Your task to perform on an android device: set default search engine in the chrome app Image 0: 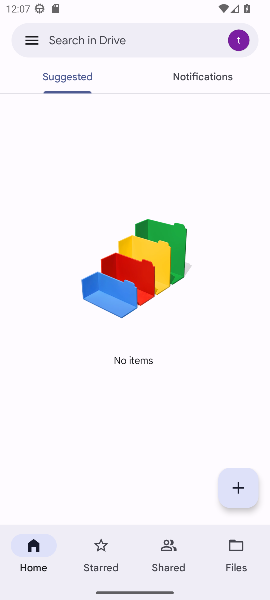
Step 0: press home button
Your task to perform on an android device: set default search engine in the chrome app Image 1: 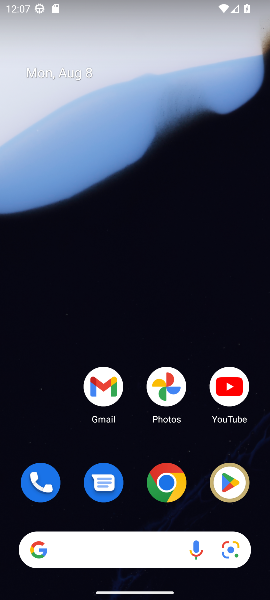
Step 1: drag from (143, 548) to (148, 250)
Your task to perform on an android device: set default search engine in the chrome app Image 2: 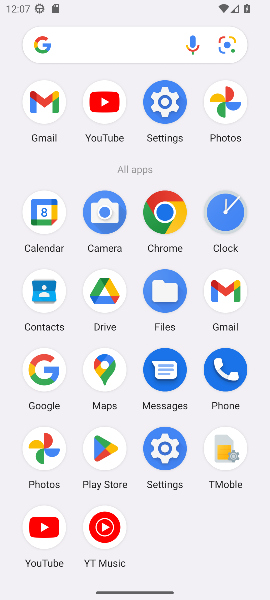
Step 2: click (163, 215)
Your task to perform on an android device: set default search engine in the chrome app Image 3: 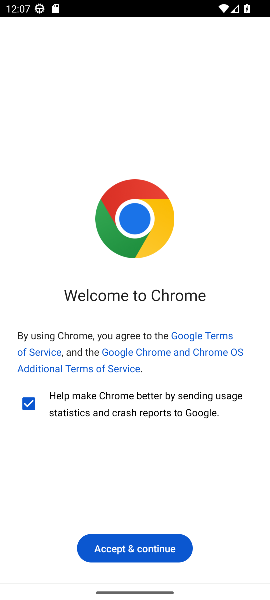
Step 3: click (152, 557)
Your task to perform on an android device: set default search engine in the chrome app Image 4: 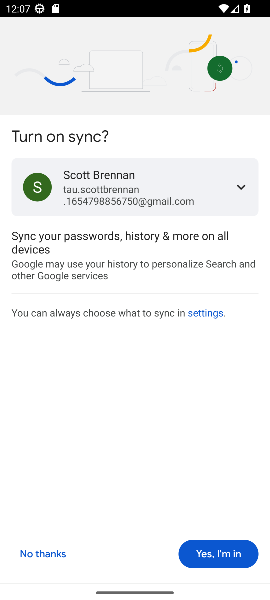
Step 4: click (43, 553)
Your task to perform on an android device: set default search engine in the chrome app Image 5: 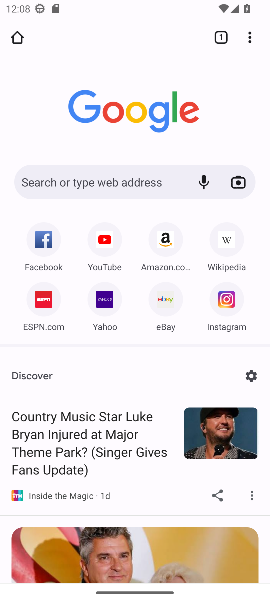
Step 5: click (247, 32)
Your task to perform on an android device: set default search engine in the chrome app Image 6: 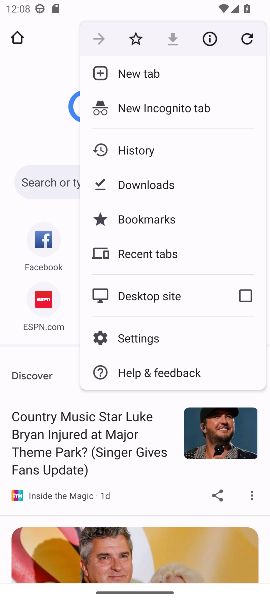
Step 6: click (152, 339)
Your task to perform on an android device: set default search engine in the chrome app Image 7: 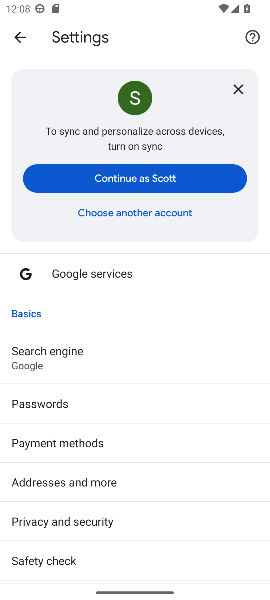
Step 7: press home button
Your task to perform on an android device: set default search engine in the chrome app Image 8: 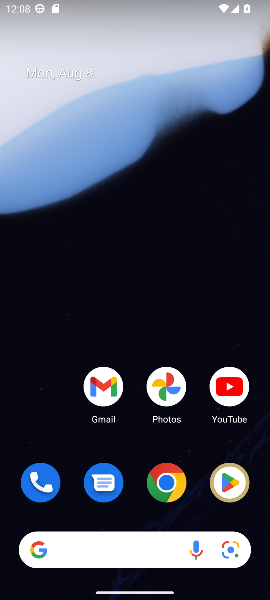
Step 8: drag from (162, 542) to (39, 61)
Your task to perform on an android device: set default search engine in the chrome app Image 9: 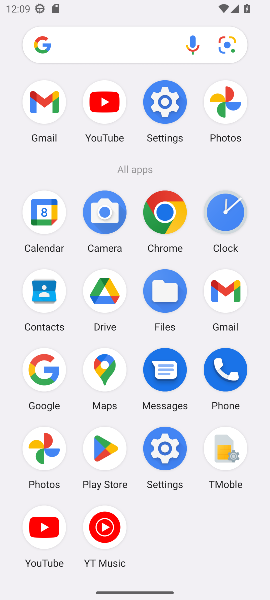
Step 9: click (39, 61)
Your task to perform on an android device: set default search engine in the chrome app Image 10: 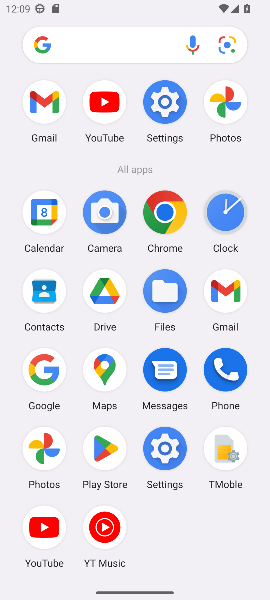
Step 10: click (175, 205)
Your task to perform on an android device: set default search engine in the chrome app Image 11: 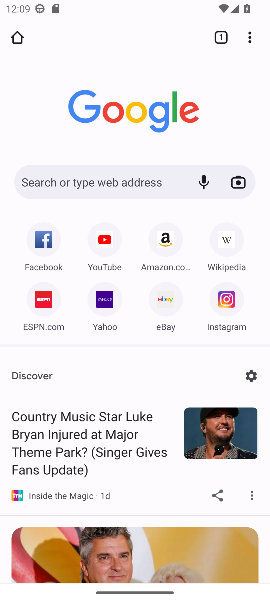
Step 11: click (248, 38)
Your task to perform on an android device: set default search engine in the chrome app Image 12: 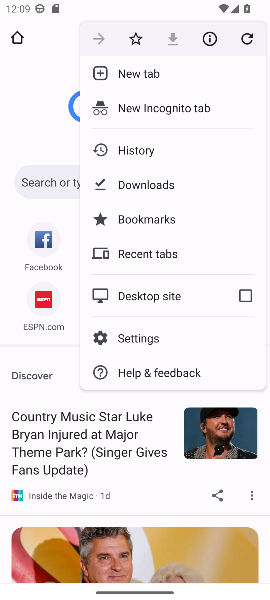
Step 12: click (144, 335)
Your task to perform on an android device: set default search engine in the chrome app Image 13: 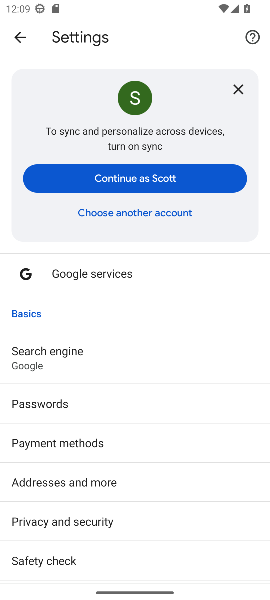
Step 13: click (91, 365)
Your task to perform on an android device: set default search engine in the chrome app Image 14: 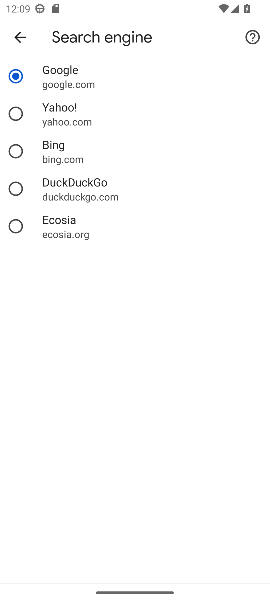
Step 14: task complete